Your task to perform on an android device: open device folders in google photos Image 0: 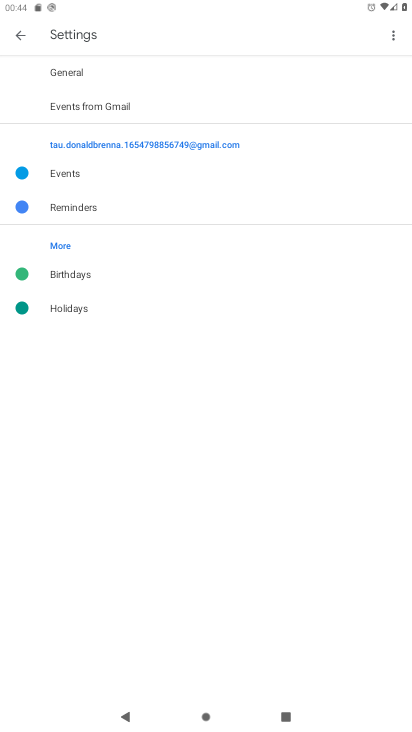
Step 0: press home button
Your task to perform on an android device: open device folders in google photos Image 1: 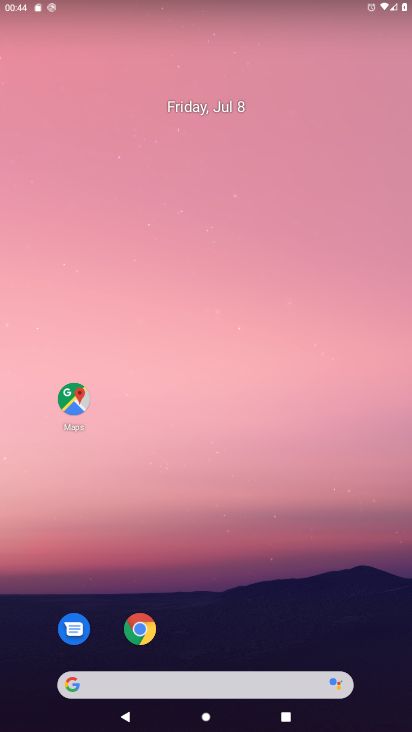
Step 1: drag from (302, 573) to (151, 14)
Your task to perform on an android device: open device folders in google photos Image 2: 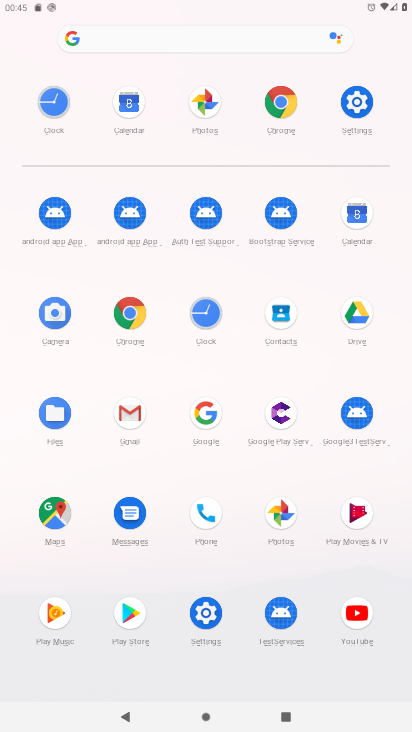
Step 2: click (276, 514)
Your task to perform on an android device: open device folders in google photos Image 3: 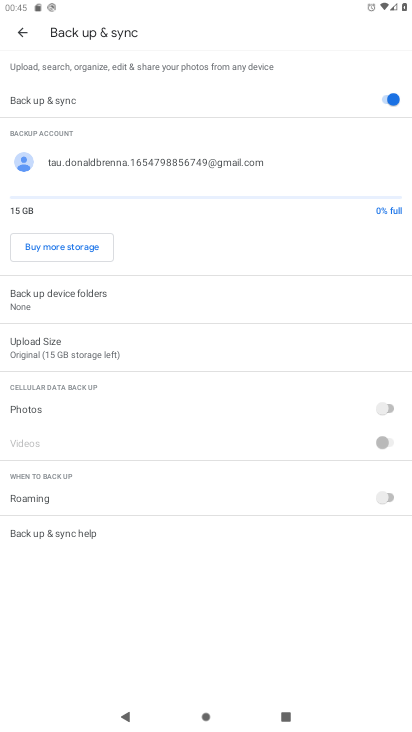
Step 3: click (15, 30)
Your task to perform on an android device: open device folders in google photos Image 4: 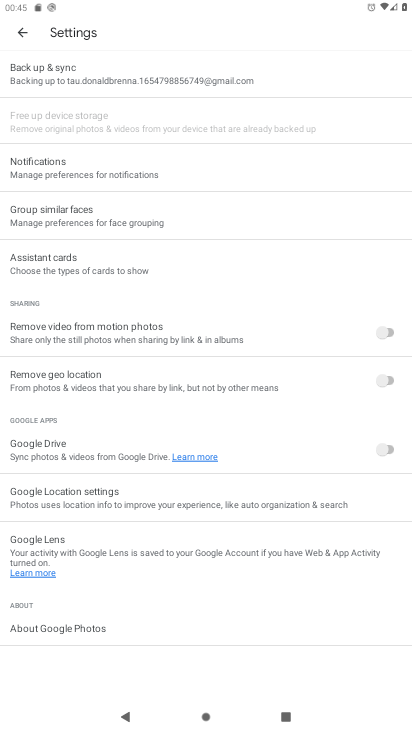
Step 4: click (18, 30)
Your task to perform on an android device: open device folders in google photos Image 5: 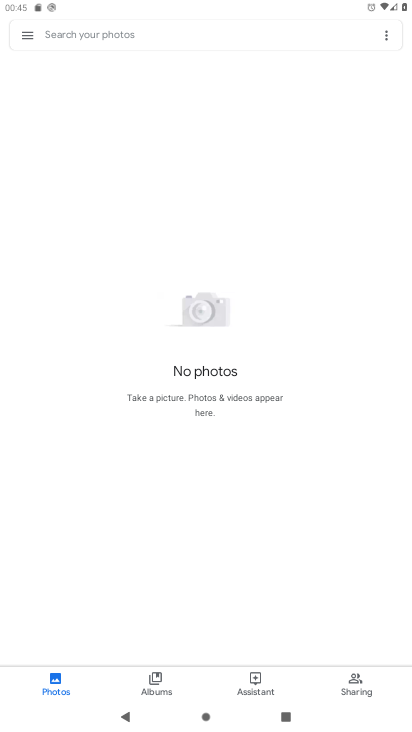
Step 5: click (28, 30)
Your task to perform on an android device: open device folders in google photos Image 6: 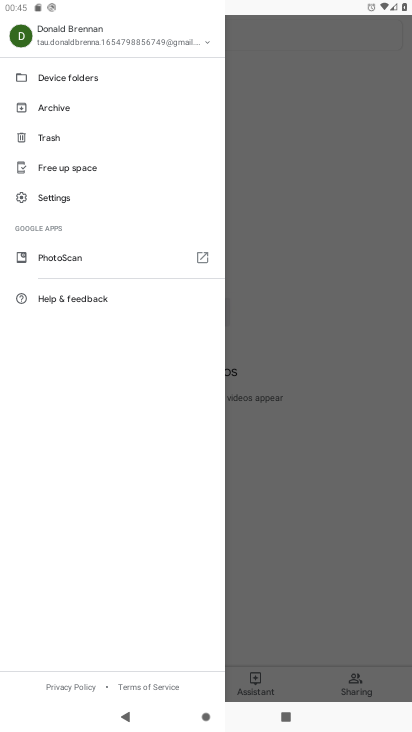
Step 6: click (39, 81)
Your task to perform on an android device: open device folders in google photos Image 7: 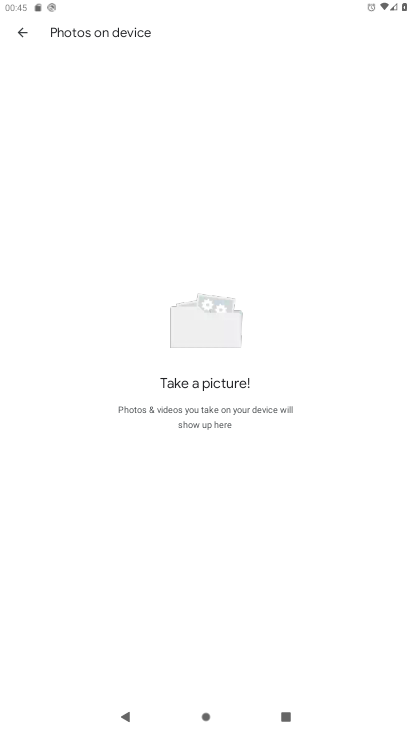
Step 7: task complete